Your task to perform on an android device: toggle notification dots Image 0: 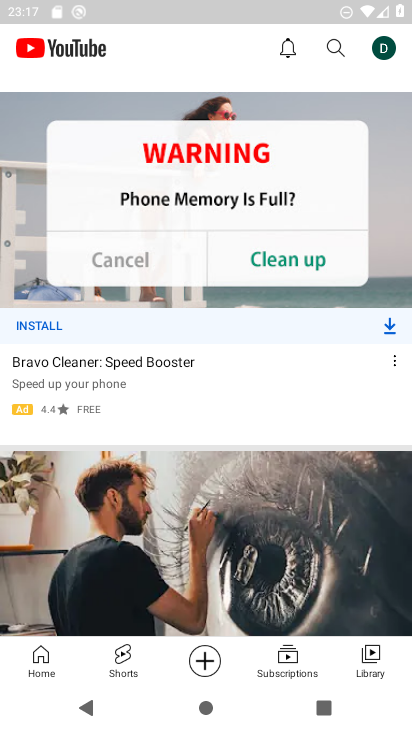
Step 0: press home button
Your task to perform on an android device: toggle notification dots Image 1: 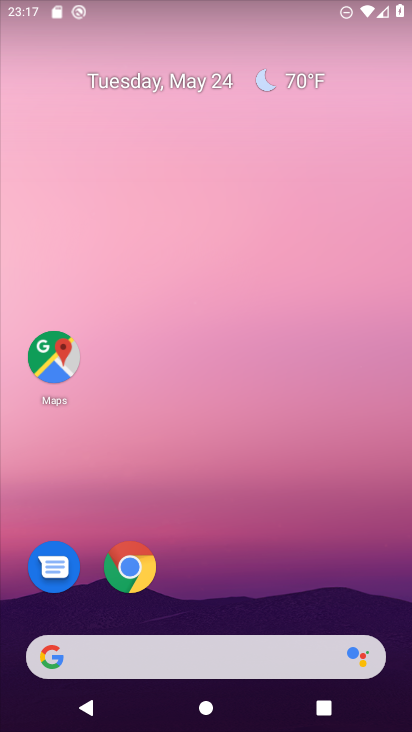
Step 1: drag from (266, 448) to (204, 48)
Your task to perform on an android device: toggle notification dots Image 2: 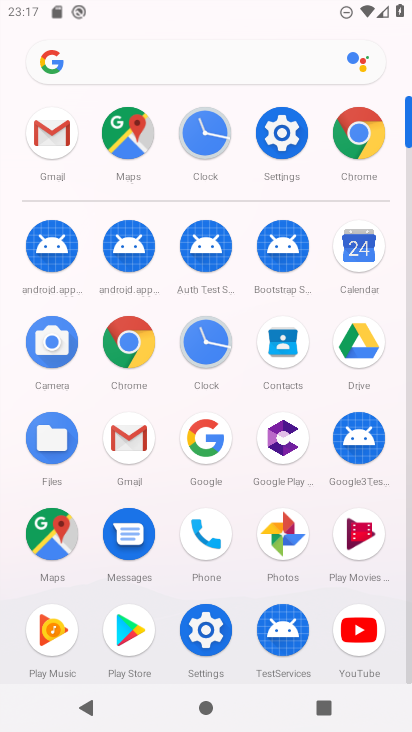
Step 2: click (269, 119)
Your task to perform on an android device: toggle notification dots Image 3: 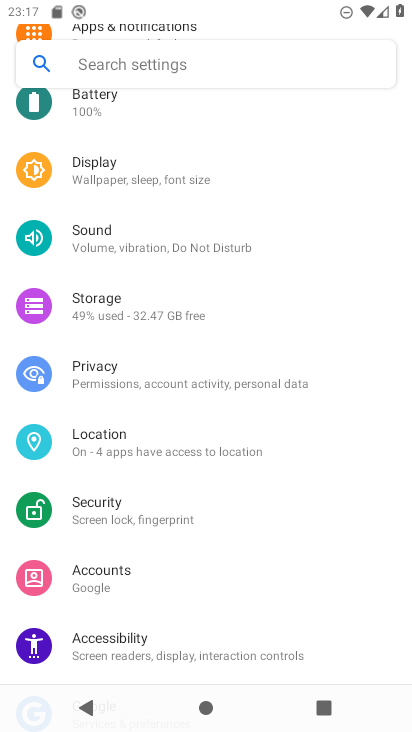
Step 3: drag from (208, 250) to (219, 596)
Your task to perform on an android device: toggle notification dots Image 4: 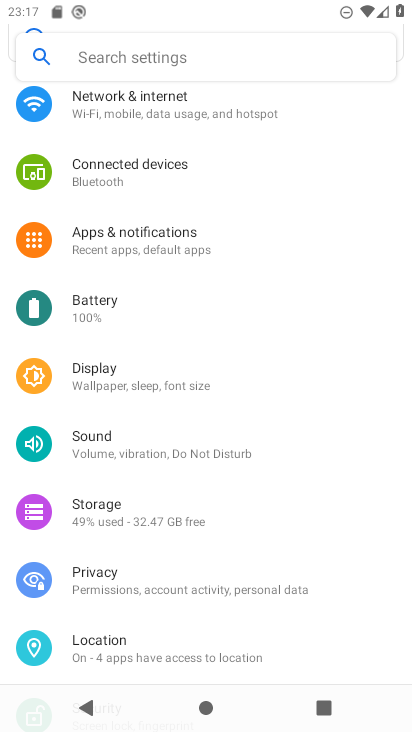
Step 4: click (178, 239)
Your task to perform on an android device: toggle notification dots Image 5: 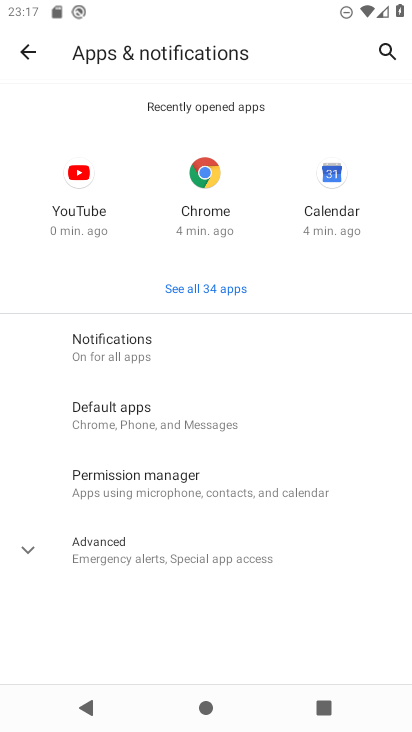
Step 5: click (155, 347)
Your task to perform on an android device: toggle notification dots Image 6: 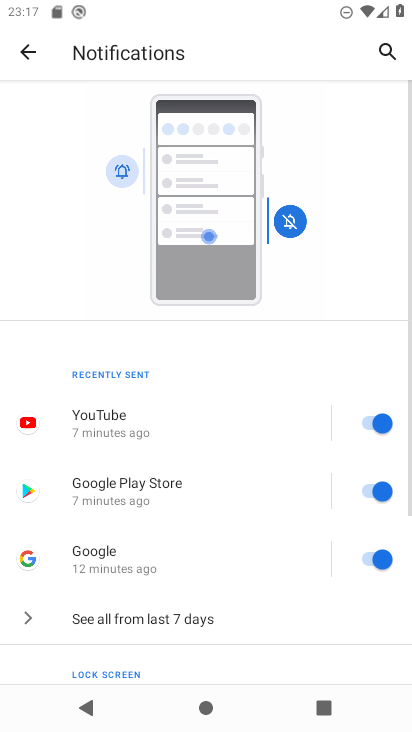
Step 6: drag from (234, 595) to (226, 115)
Your task to perform on an android device: toggle notification dots Image 7: 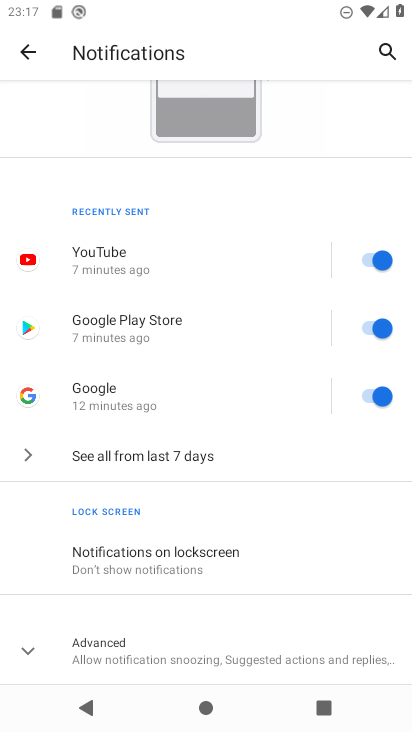
Step 7: click (231, 642)
Your task to perform on an android device: toggle notification dots Image 8: 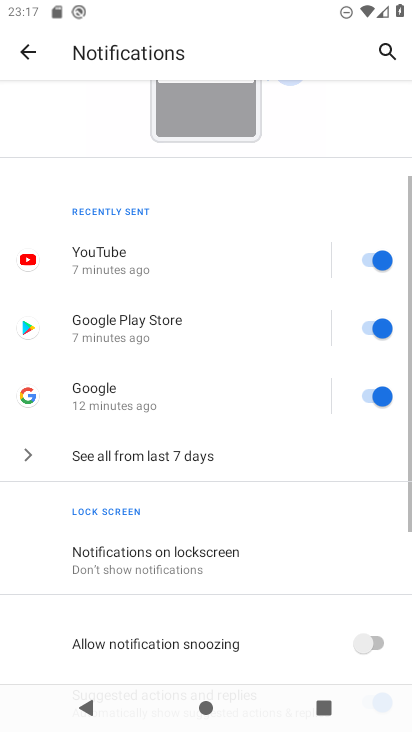
Step 8: drag from (248, 595) to (254, 204)
Your task to perform on an android device: toggle notification dots Image 9: 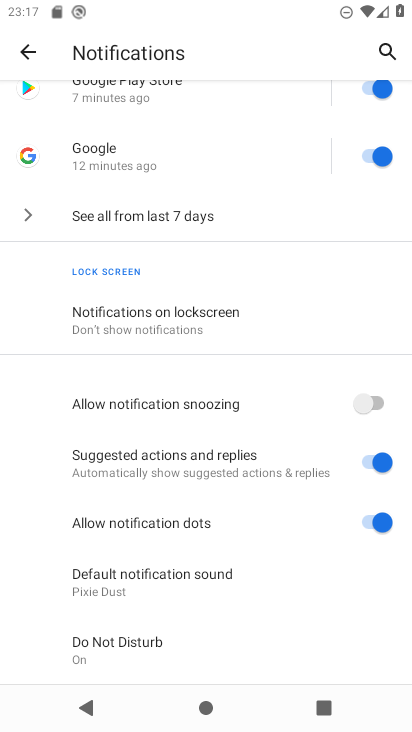
Step 9: click (377, 524)
Your task to perform on an android device: toggle notification dots Image 10: 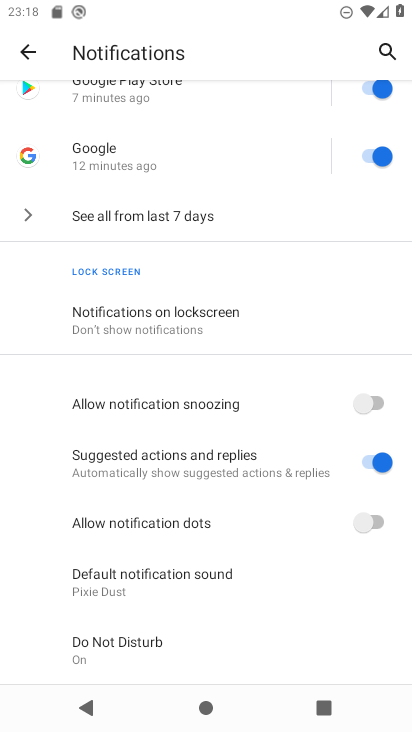
Step 10: task complete